Your task to perform on an android device: What's the weather? Image 0: 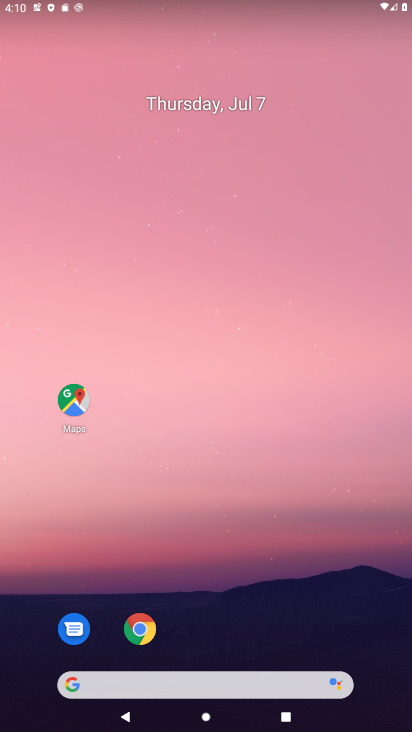
Step 0: drag from (212, 615) to (193, 360)
Your task to perform on an android device: What's the weather? Image 1: 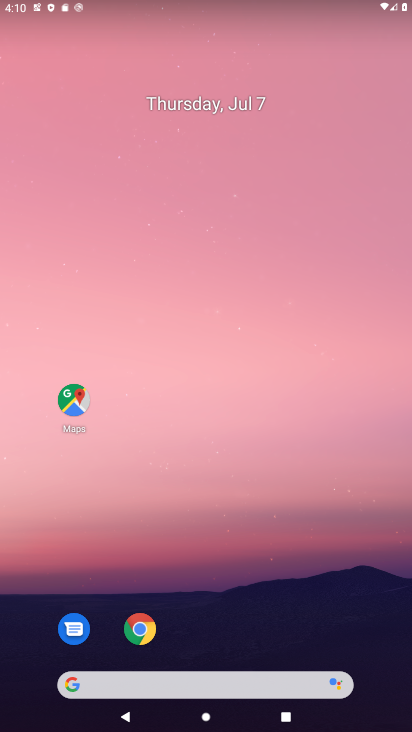
Step 1: drag from (246, 618) to (238, 230)
Your task to perform on an android device: What's the weather? Image 2: 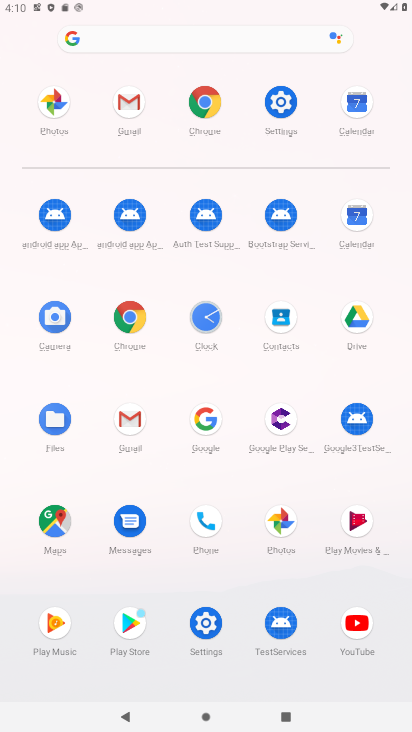
Step 2: click (195, 419)
Your task to perform on an android device: What's the weather? Image 3: 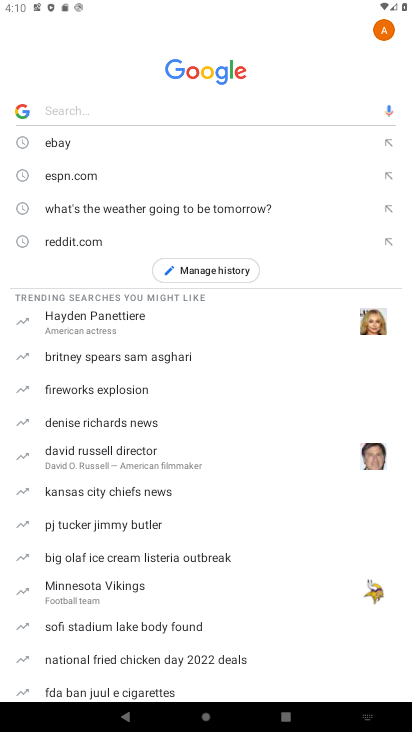
Step 3: click (157, 90)
Your task to perform on an android device: What's the weather? Image 4: 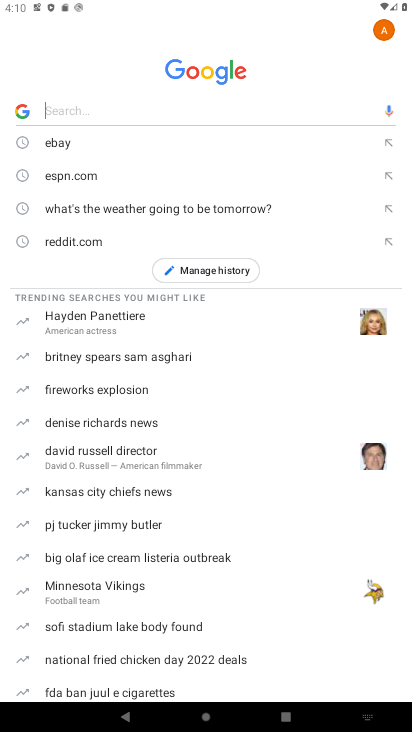
Step 4: type "What's the weather "
Your task to perform on an android device: What's the weather? Image 5: 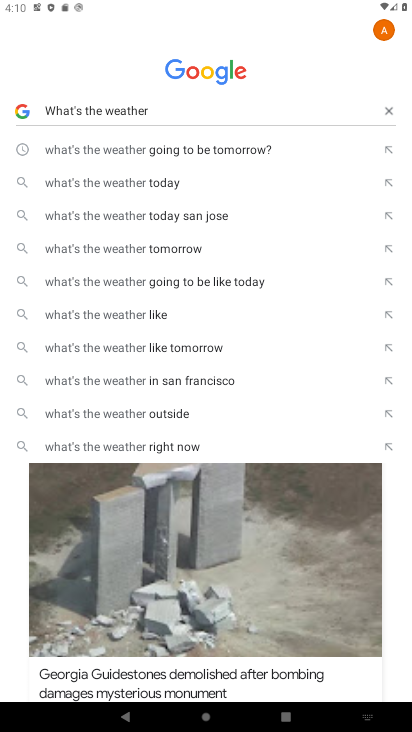
Step 5: task complete